Your task to perform on an android device: Add "dell alienware" to the cart on ebay, then select checkout. Image 0: 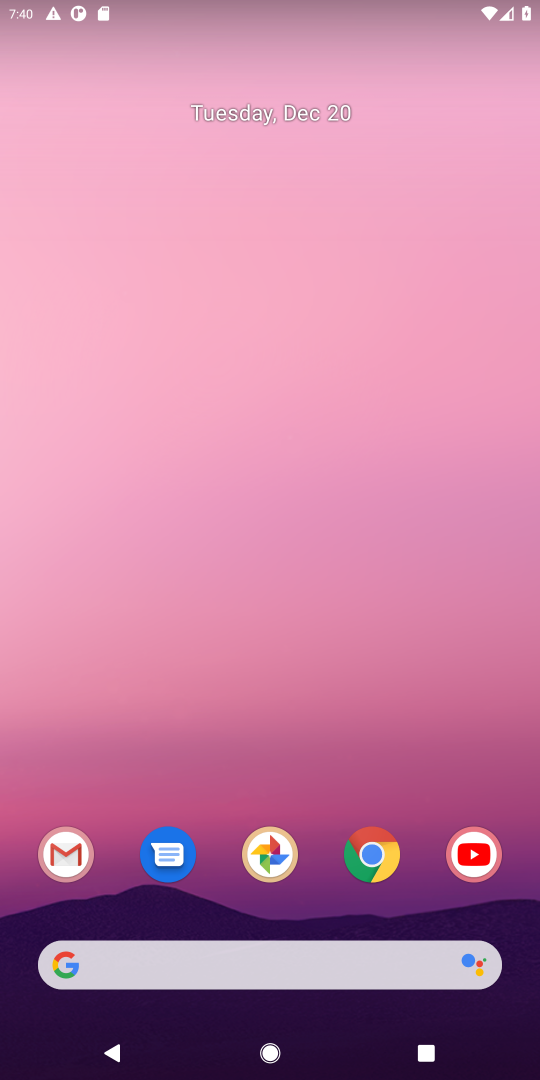
Step 0: click (367, 863)
Your task to perform on an android device: Add "dell alienware" to the cart on ebay, then select checkout. Image 1: 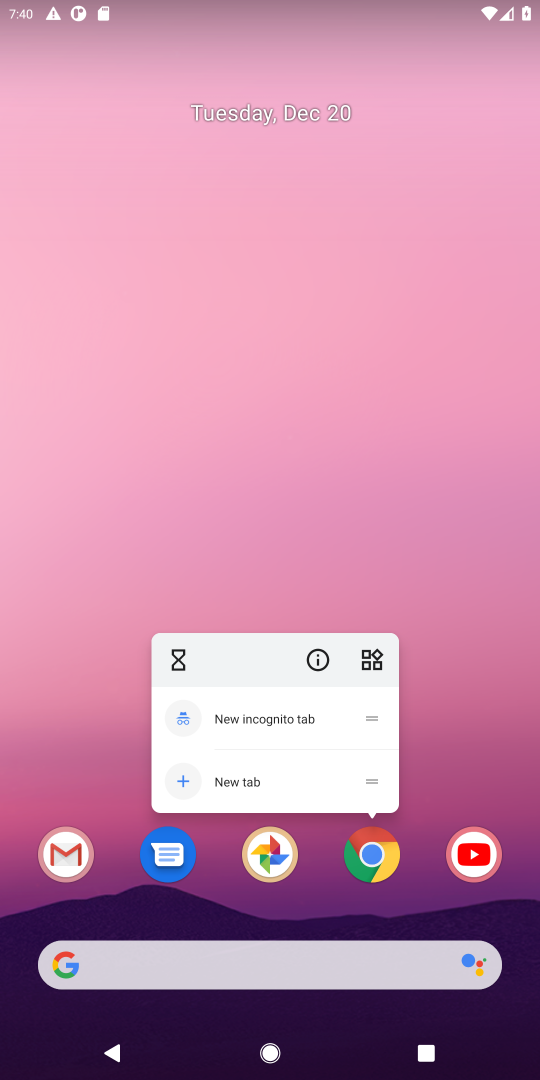
Step 1: click (370, 863)
Your task to perform on an android device: Add "dell alienware" to the cart on ebay, then select checkout. Image 2: 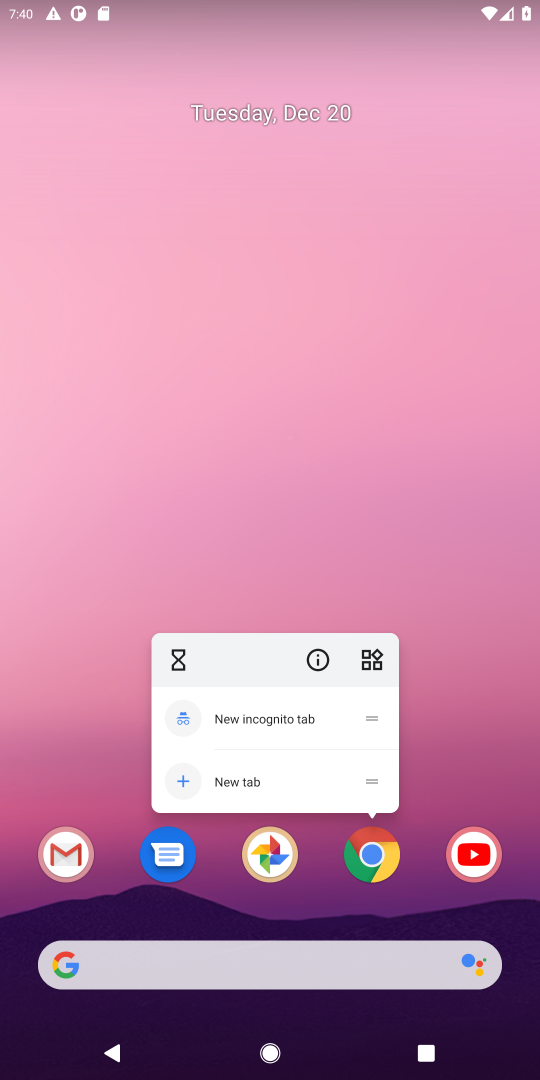
Step 2: click (370, 863)
Your task to perform on an android device: Add "dell alienware" to the cart on ebay, then select checkout. Image 3: 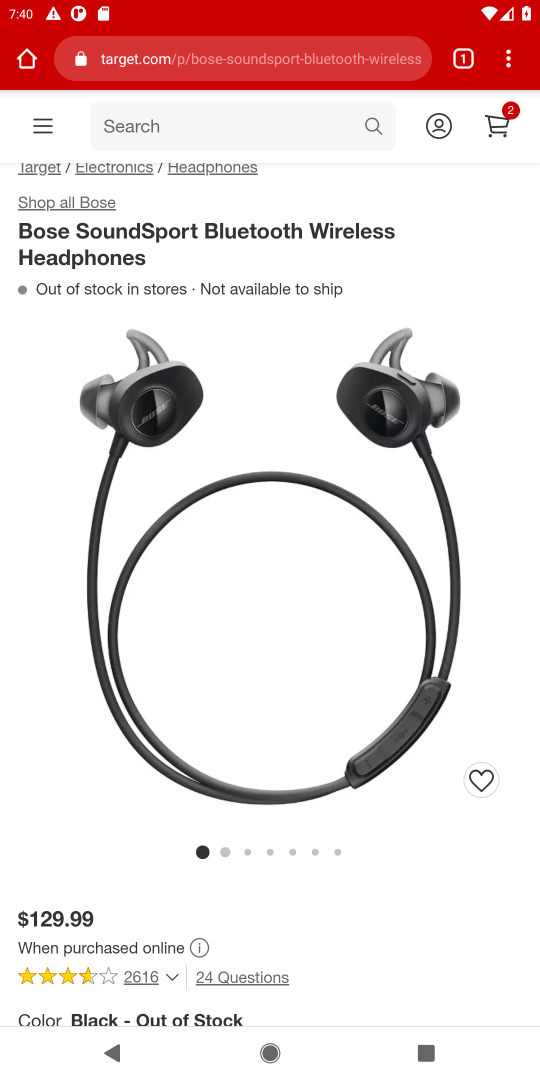
Step 3: click (157, 59)
Your task to perform on an android device: Add "dell alienware" to the cart on ebay, then select checkout. Image 4: 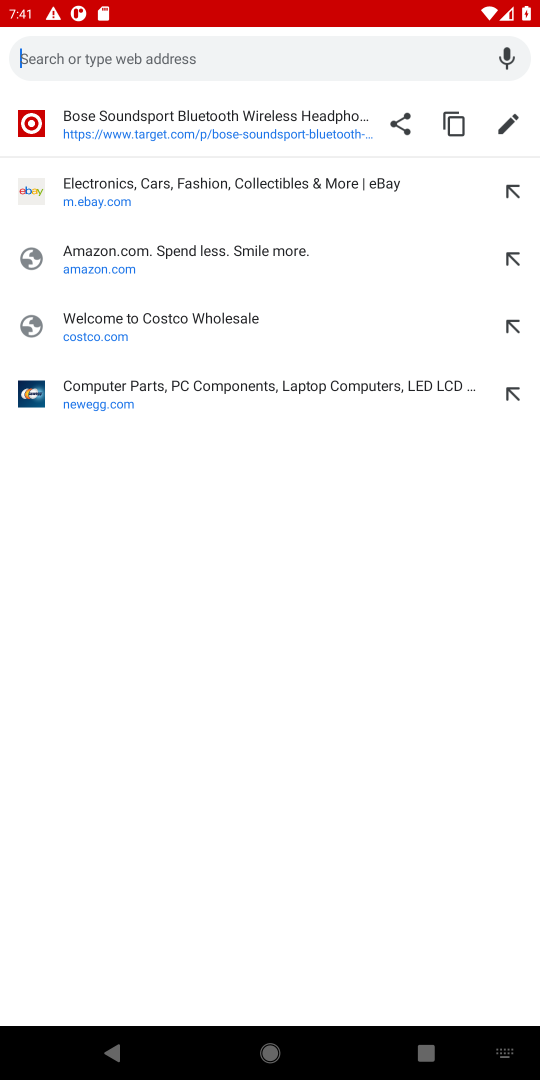
Step 4: click (84, 186)
Your task to perform on an android device: Add "dell alienware" to the cart on ebay, then select checkout. Image 5: 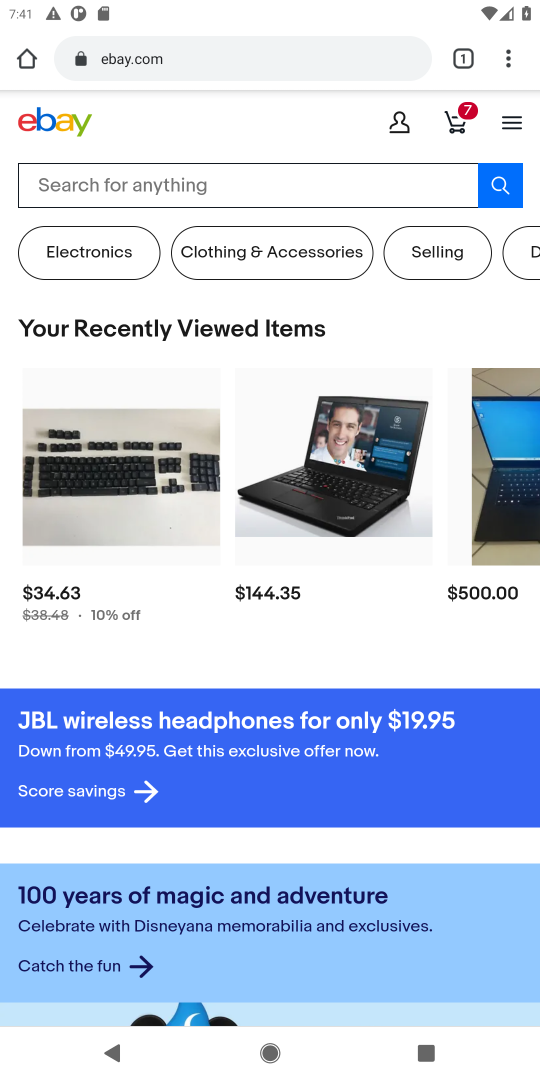
Step 5: click (81, 186)
Your task to perform on an android device: Add "dell alienware" to the cart on ebay, then select checkout. Image 6: 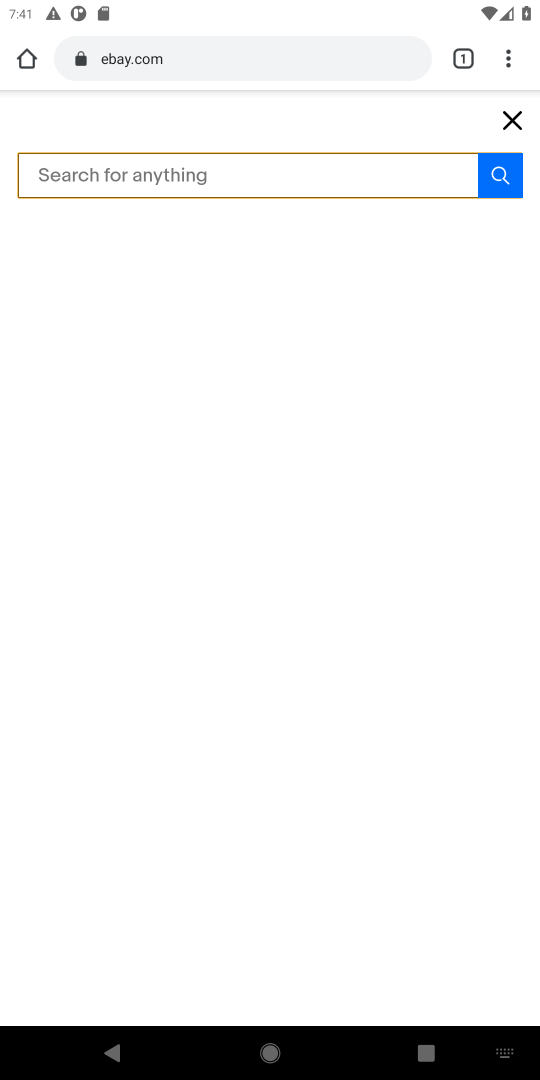
Step 6: type "dell alienware"
Your task to perform on an android device: Add "dell alienware" to the cart on ebay, then select checkout. Image 7: 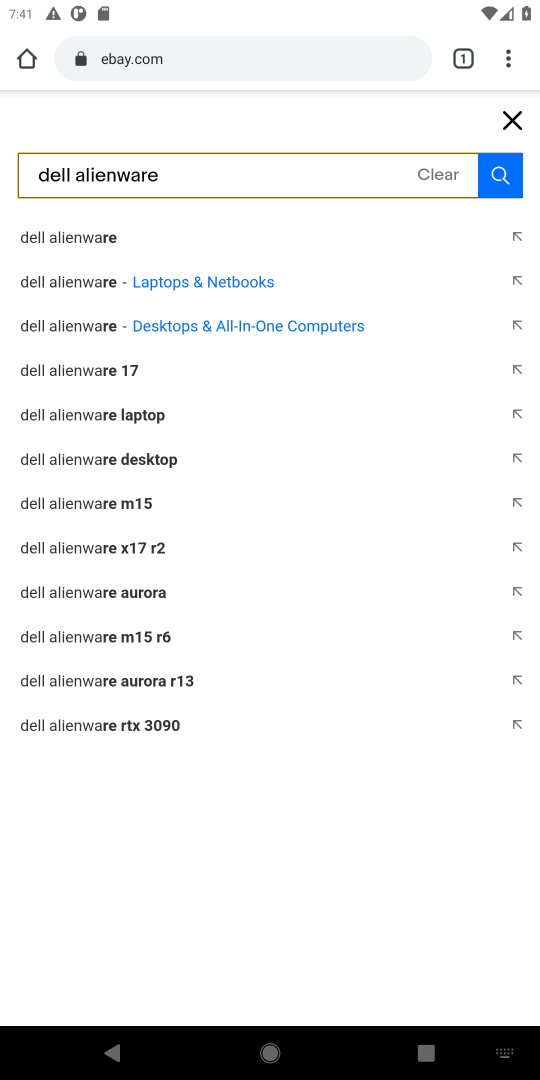
Step 7: click (69, 233)
Your task to perform on an android device: Add "dell alienware" to the cart on ebay, then select checkout. Image 8: 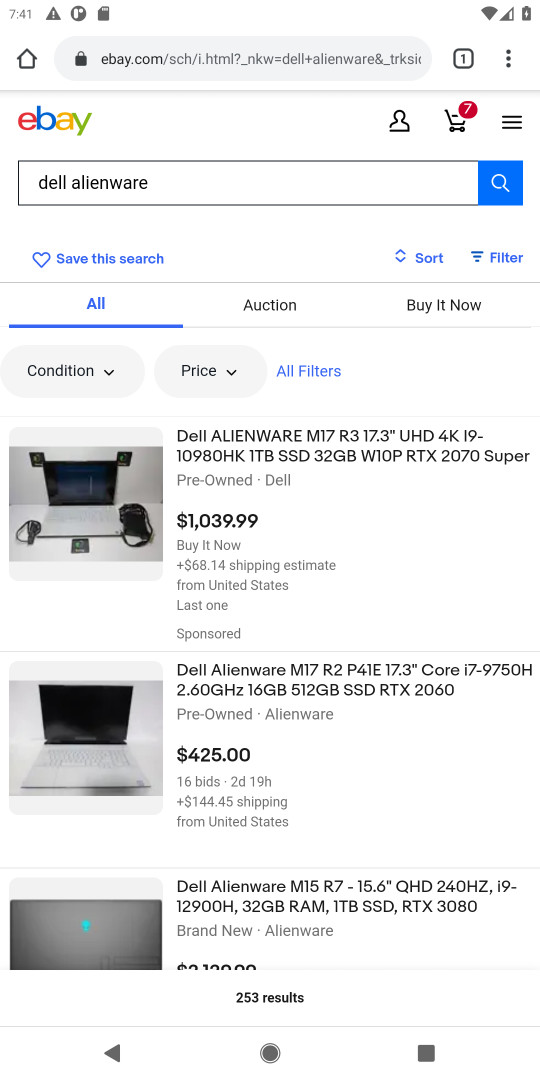
Step 8: click (207, 465)
Your task to perform on an android device: Add "dell alienware" to the cart on ebay, then select checkout. Image 9: 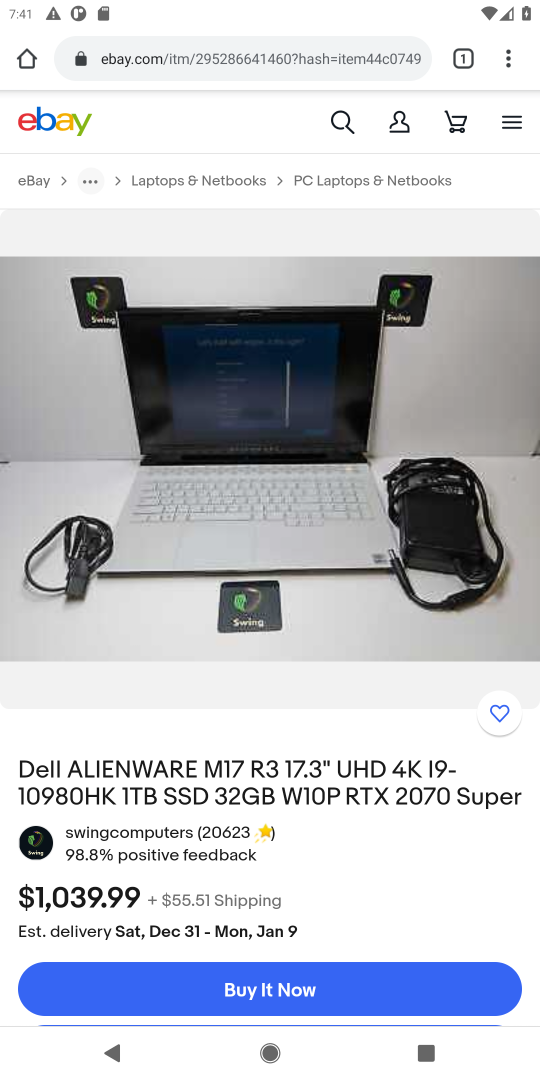
Step 9: drag from (253, 744) to (241, 465)
Your task to perform on an android device: Add "dell alienware" to the cart on ebay, then select checkout. Image 10: 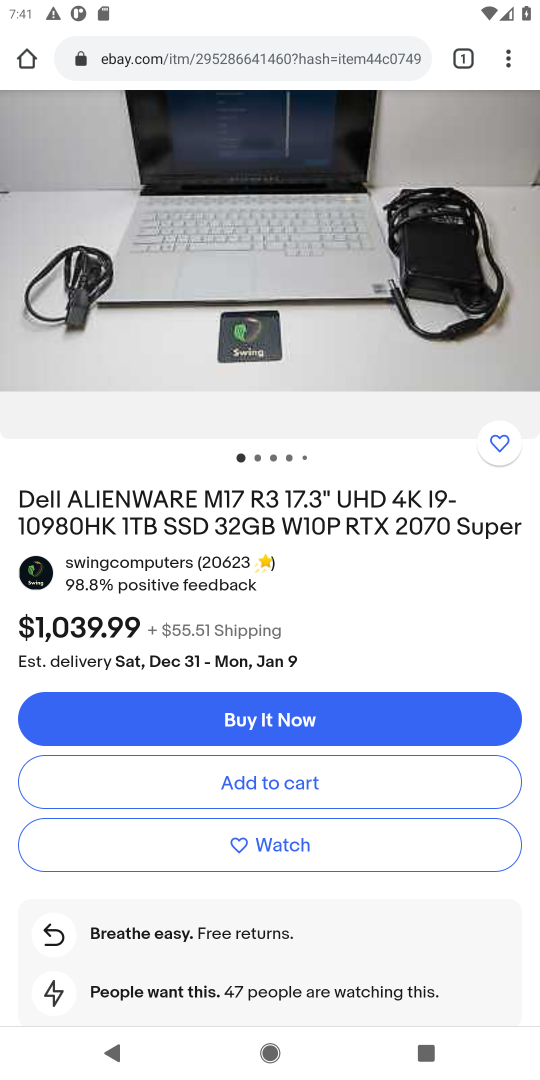
Step 10: click (235, 774)
Your task to perform on an android device: Add "dell alienware" to the cart on ebay, then select checkout. Image 11: 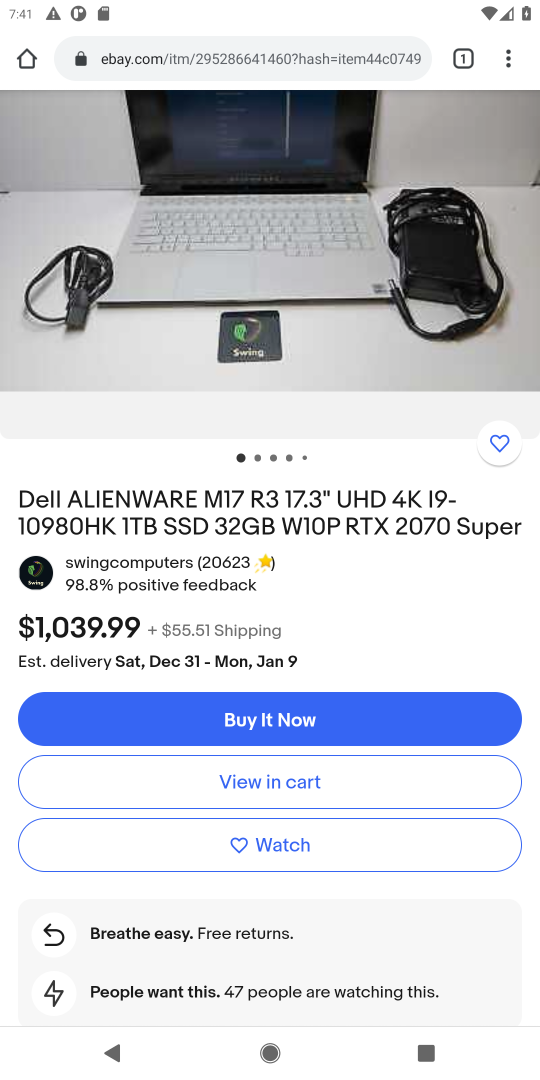
Step 11: click (235, 774)
Your task to perform on an android device: Add "dell alienware" to the cart on ebay, then select checkout. Image 12: 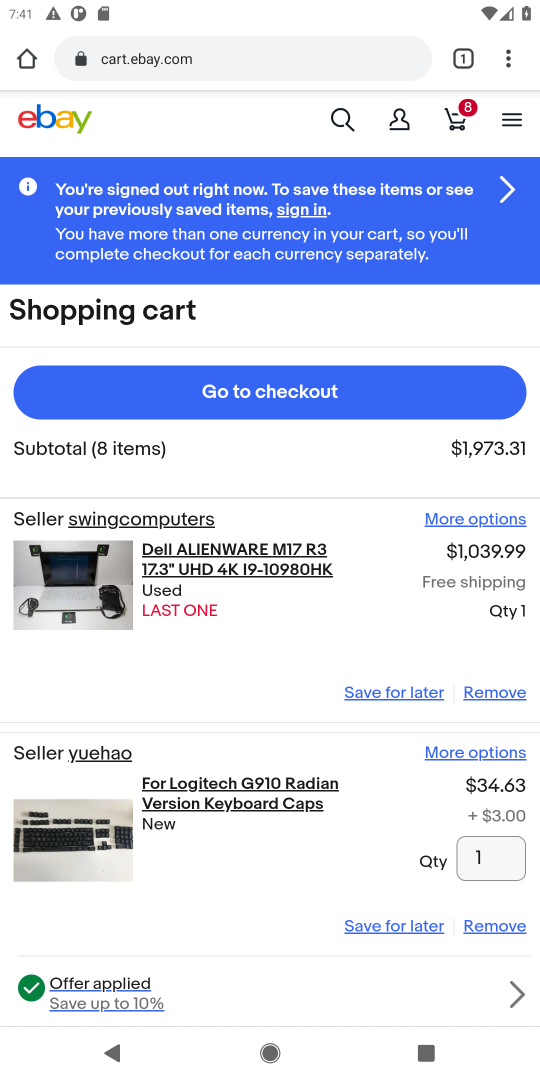
Step 12: click (304, 398)
Your task to perform on an android device: Add "dell alienware" to the cart on ebay, then select checkout. Image 13: 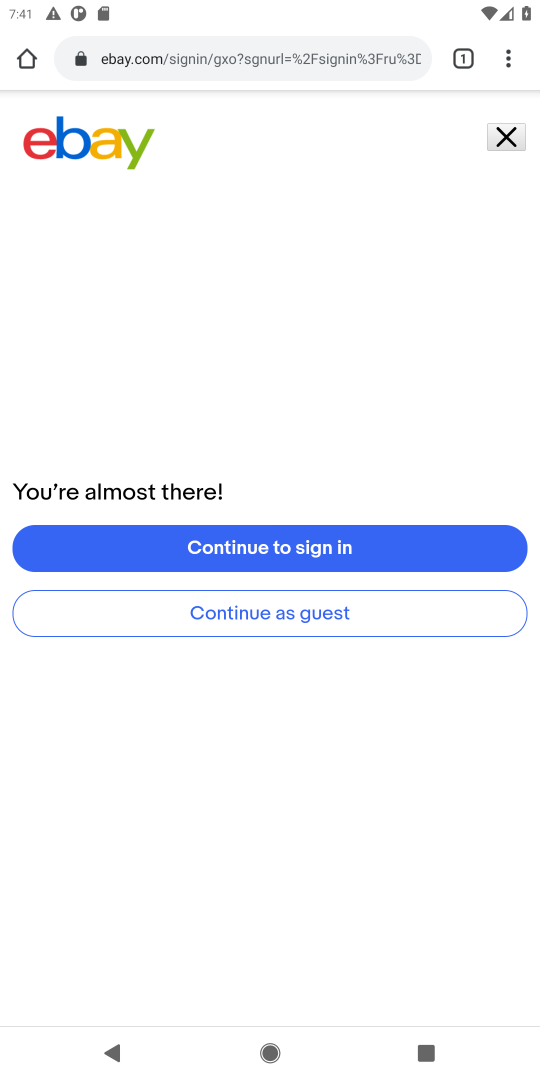
Step 13: task complete